Your task to perform on an android device: What's the news this week? Image 0: 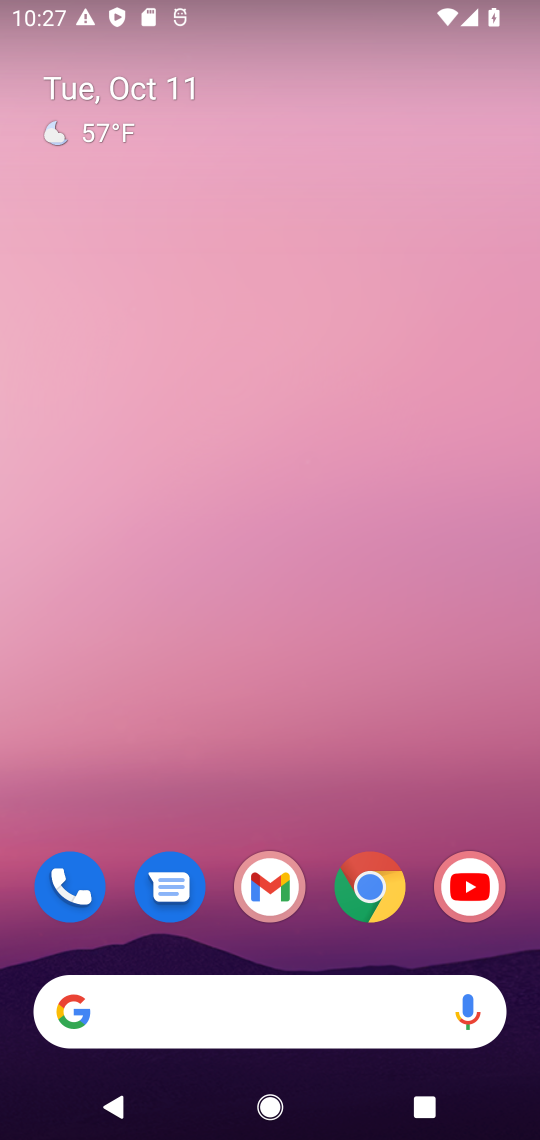
Step 0: press home button
Your task to perform on an android device: What's the news this week? Image 1: 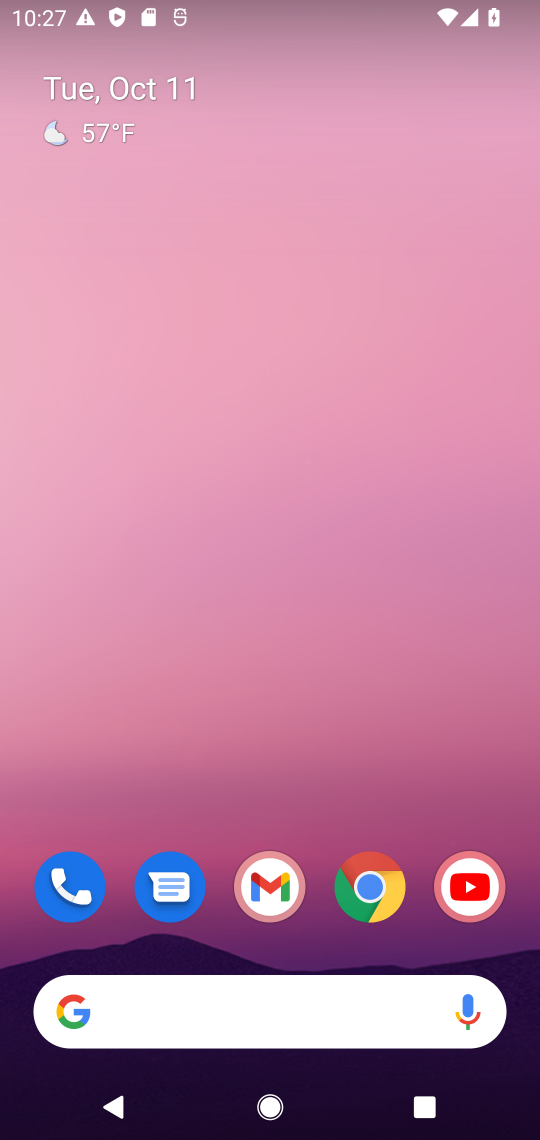
Step 1: click (276, 1012)
Your task to perform on an android device: What's the news this week? Image 2: 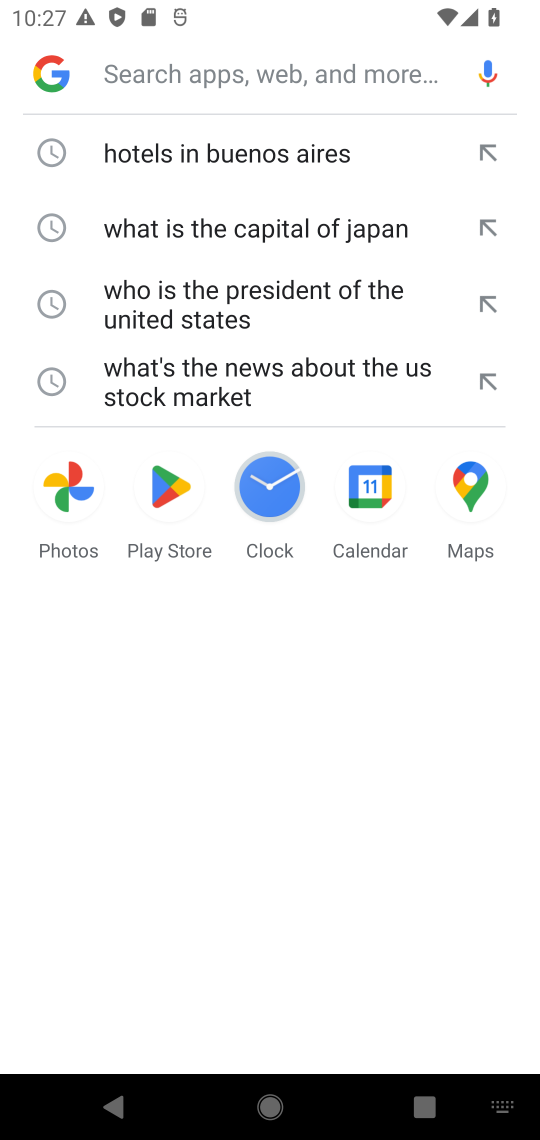
Step 2: type "What's the news this week"
Your task to perform on an android device: What's the news this week? Image 3: 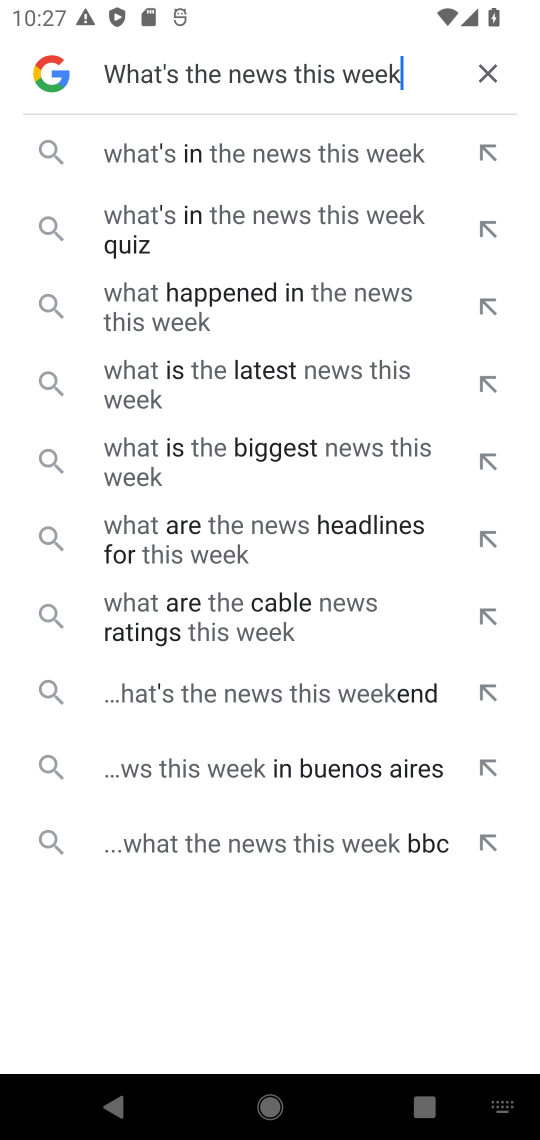
Step 3: press enter
Your task to perform on an android device: What's the news this week? Image 4: 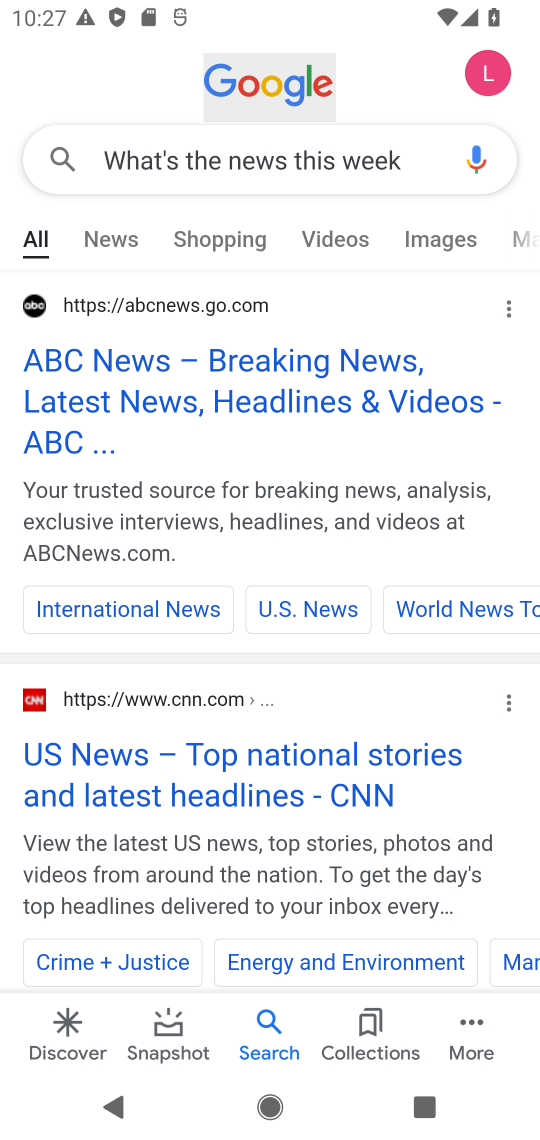
Step 4: click (329, 375)
Your task to perform on an android device: What's the news this week? Image 5: 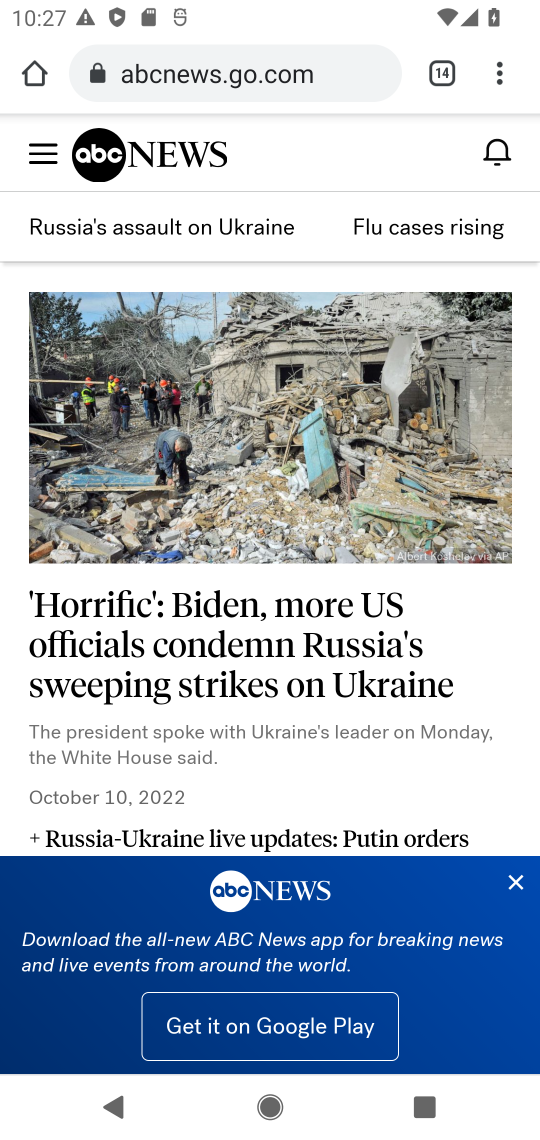
Step 5: click (521, 884)
Your task to perform on an android device: What's the news this week? Image 6: 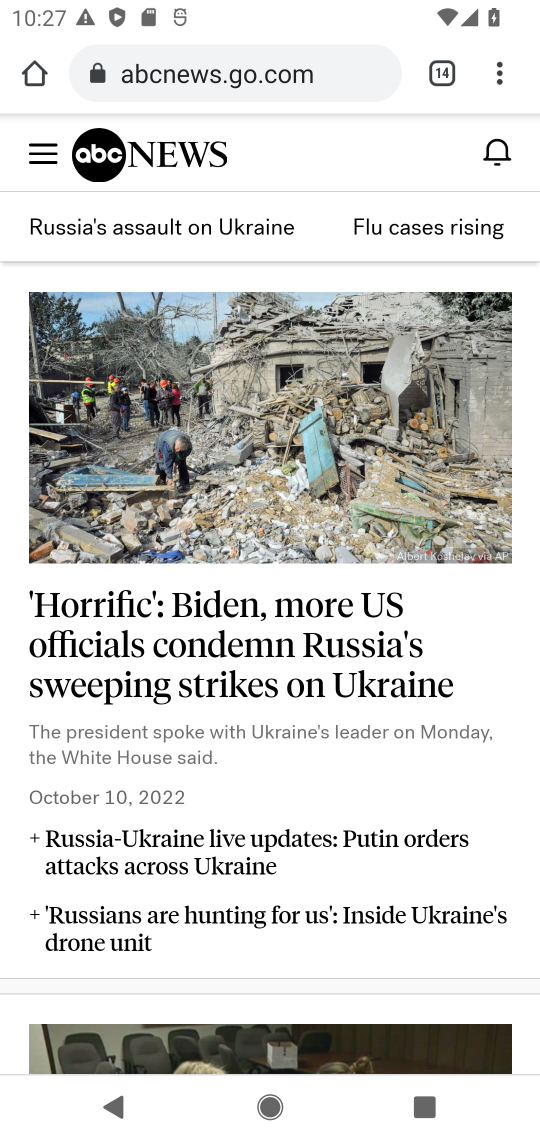
Step 6: task complete